Your task to perform on an android device: How much does the HisenseTV cost? Image 0: 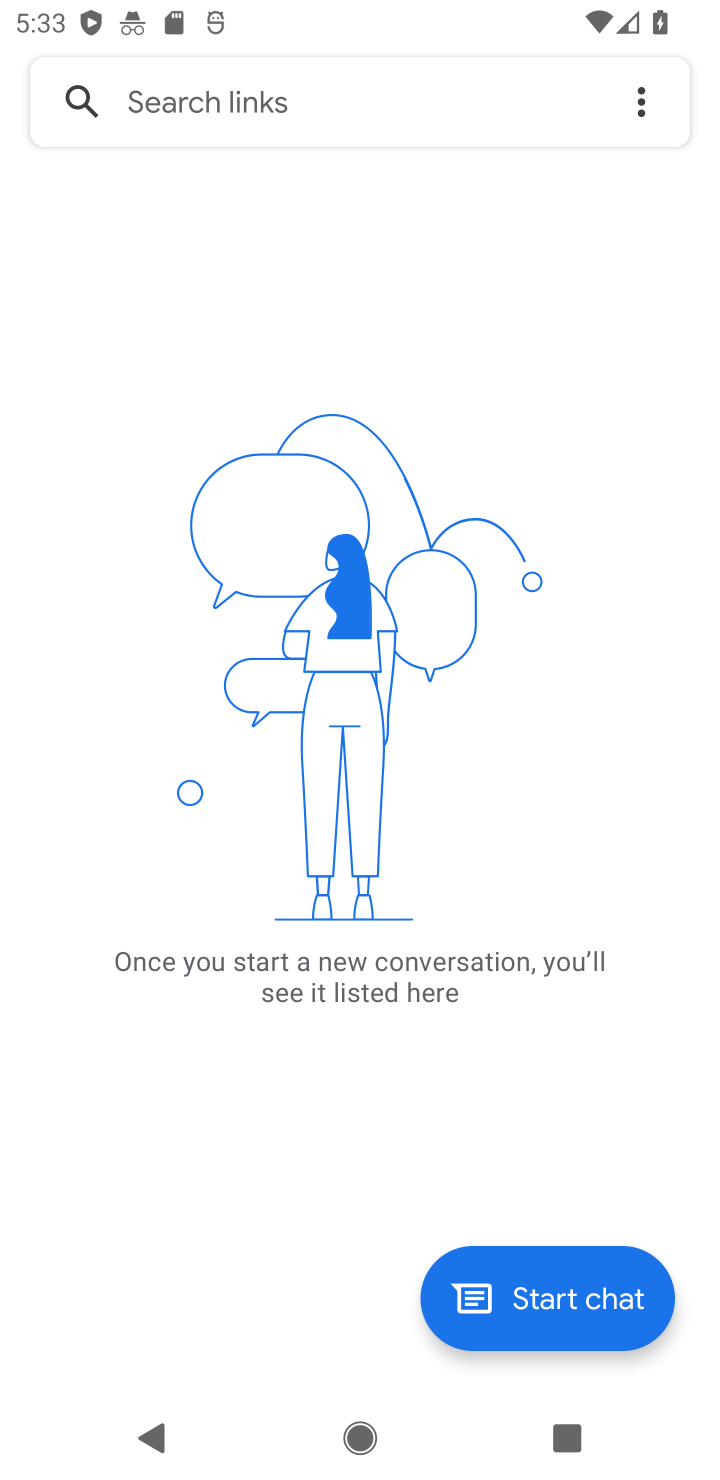
Step 0: press home button
Your task to perform on an android device: How much does the HisenseTV cost? Image 1: 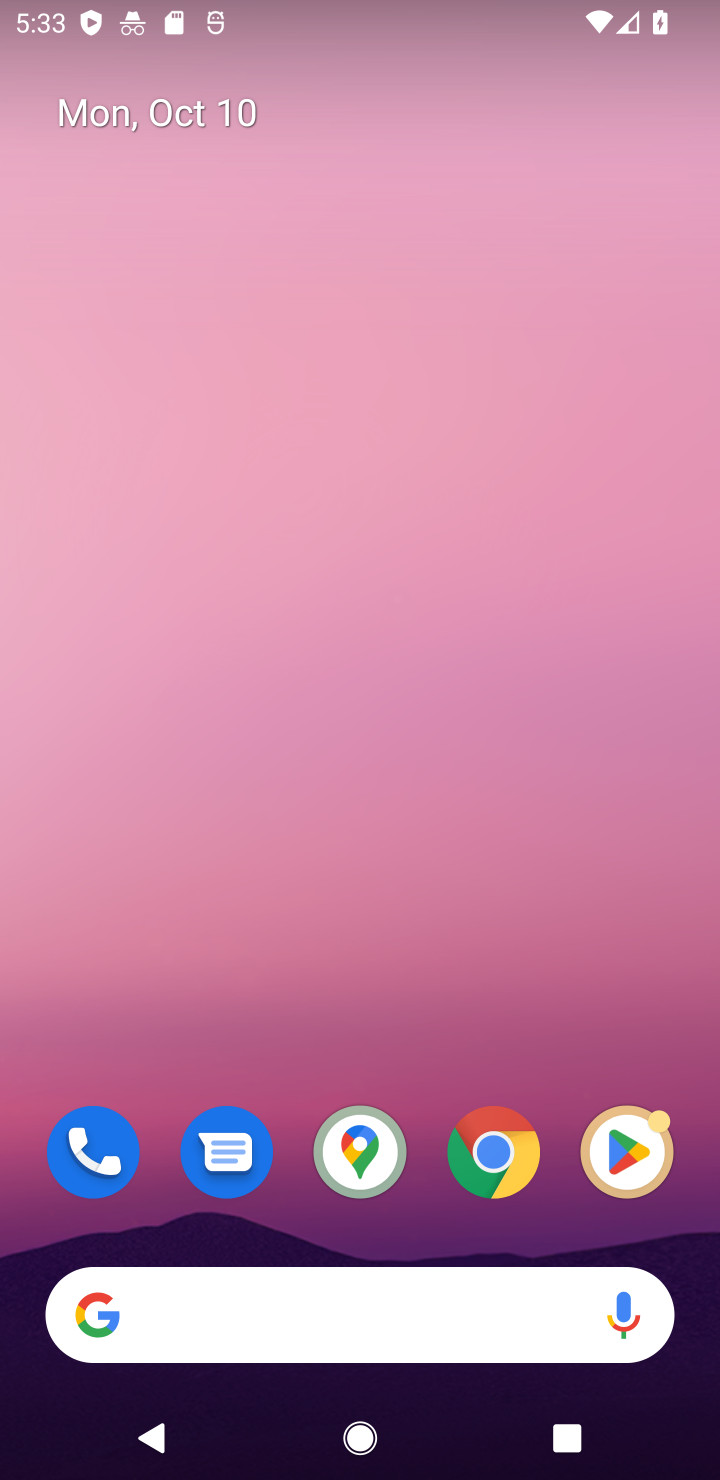
Step 1: click (492, 1151)
Your task to perform on an android device: How much does the HisenseTV cost? Image 2: 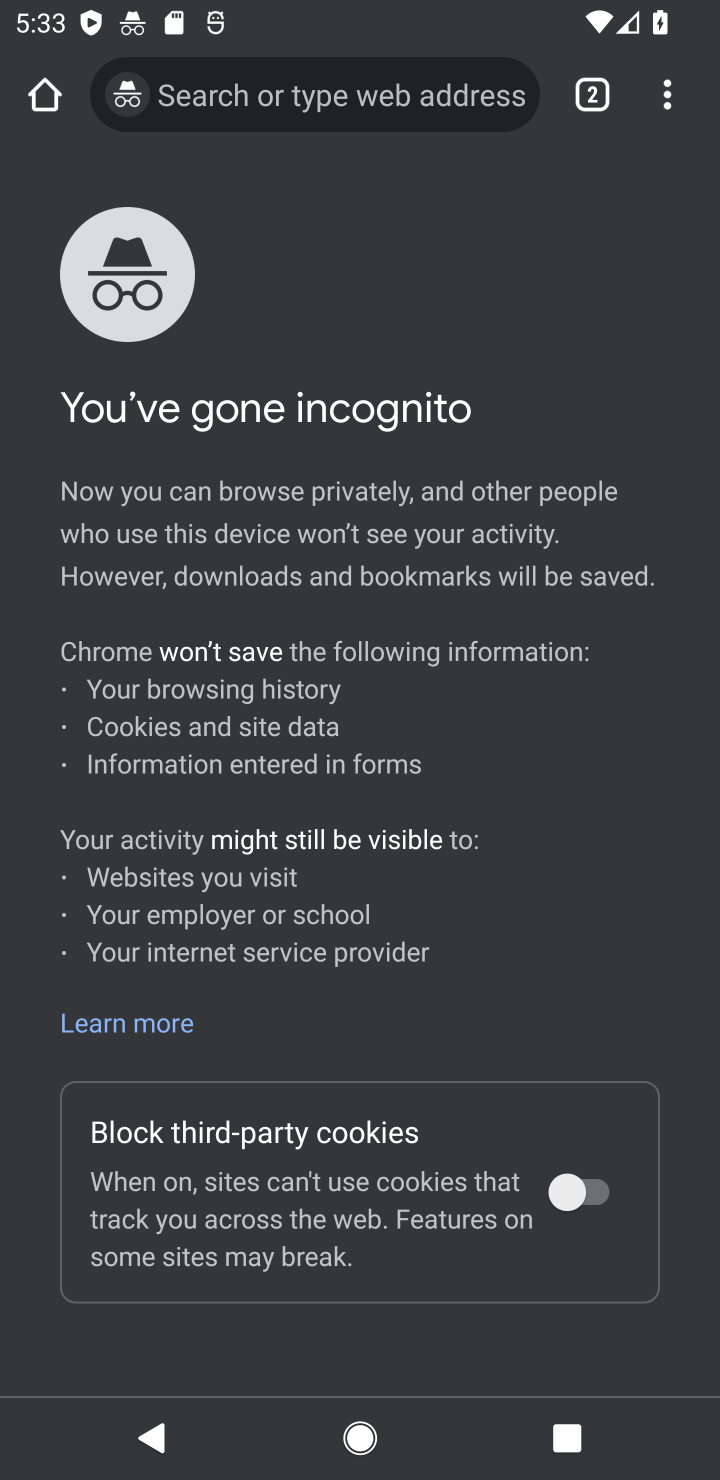
Step 2: click (371, 104)
Your task to perform on an android device: How much does the HisenseTV cost? Image 3: 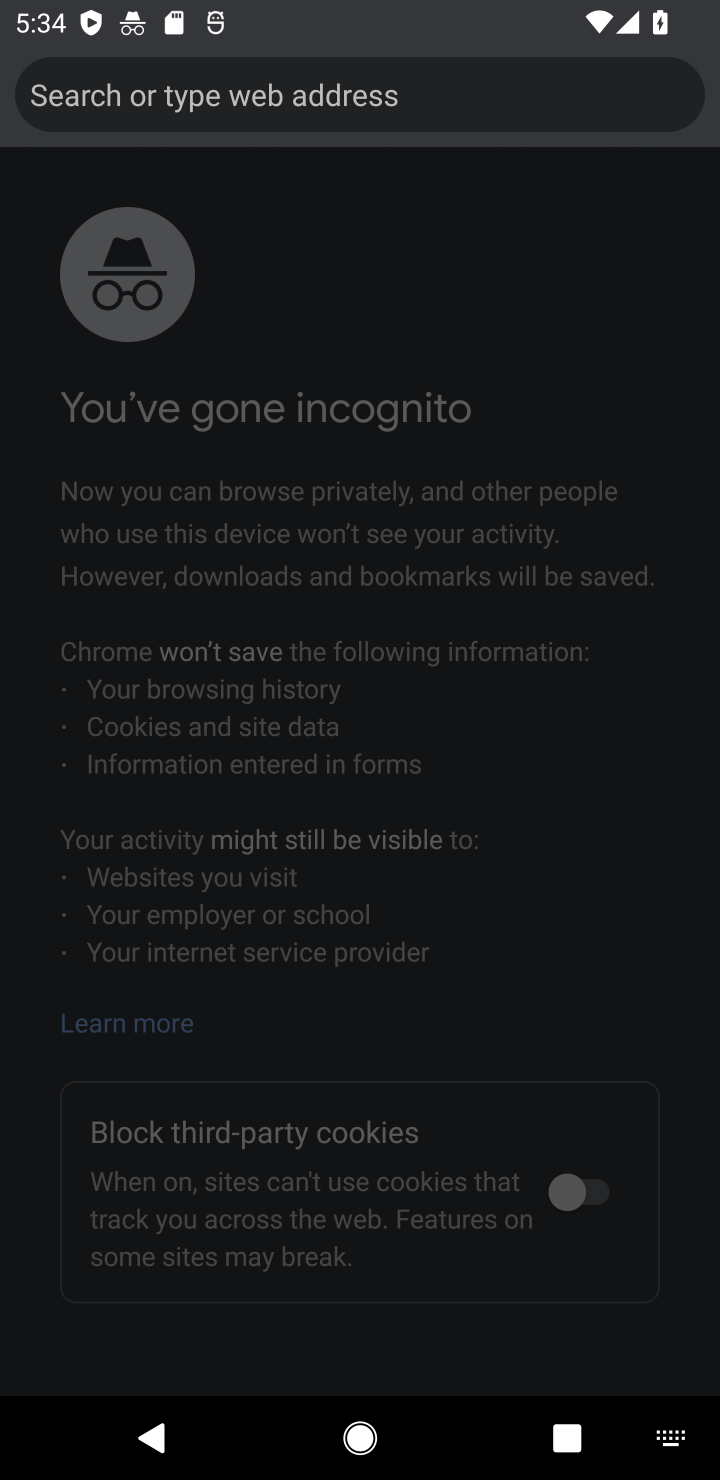
Step 3: type "How much does the HisenseTV cost?"
Your task to perform on an android device: How much does the HisenseTV cost? Image 4: 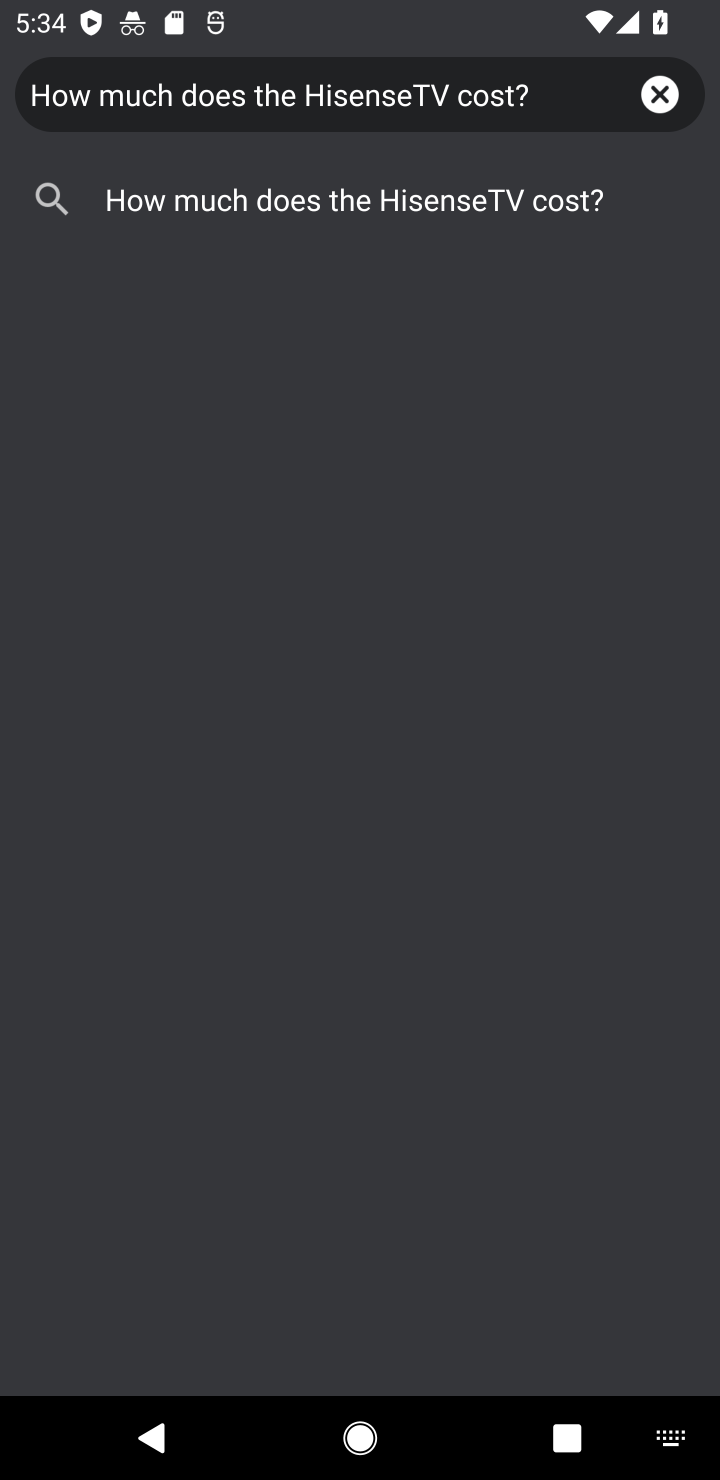
Step 4: click (400, 210)
Your task to perform on an android device: How much does the HisenseTV cost? Image 5: 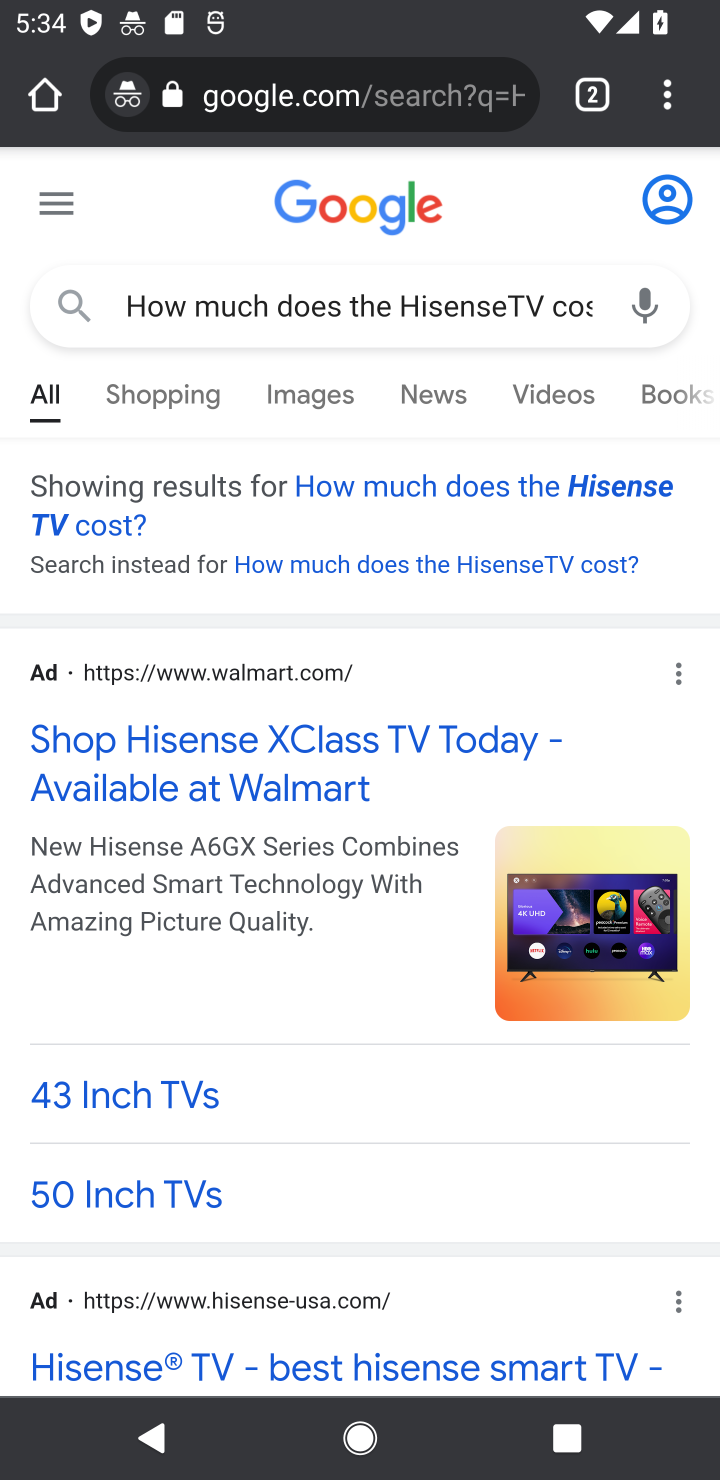
Step 5: task complete